Your task to perform on an android device: Search for a nightstand on IKEA. Image 0: 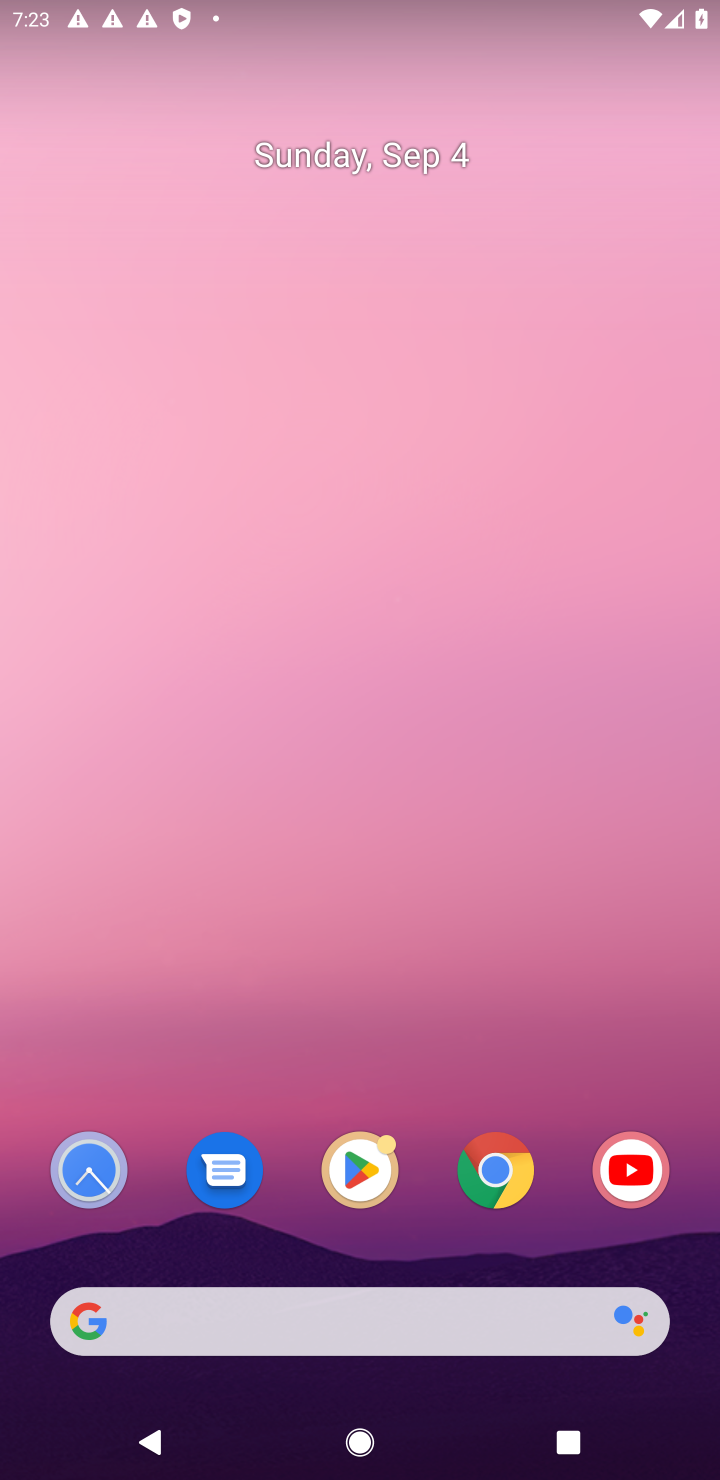
Step 0: click (492, 1145)
Your task to perform on an android device: Search for a nightstand on IKEA. Image 1: 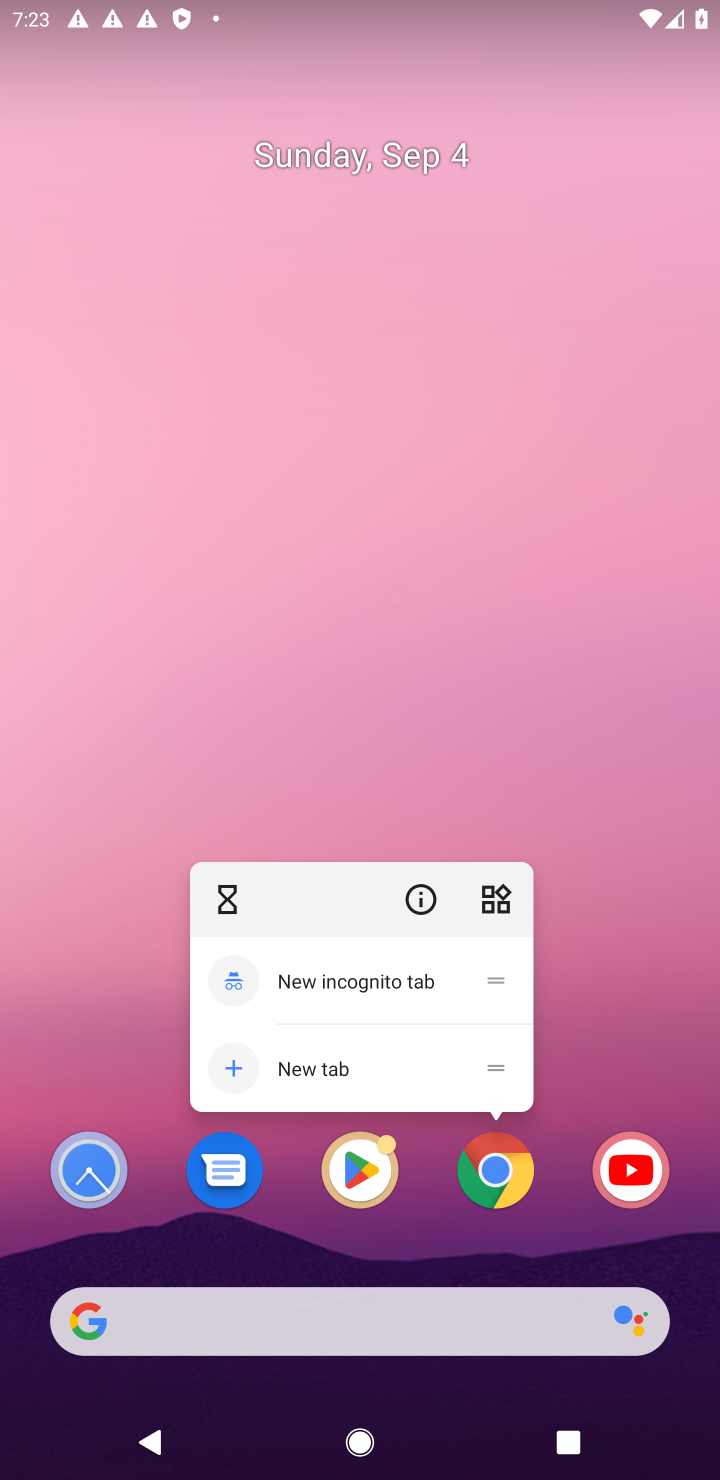
Step 1: click (492, 1145)
Your task to perform on an android device: Search for a nightstand on IKEA. Image 2: 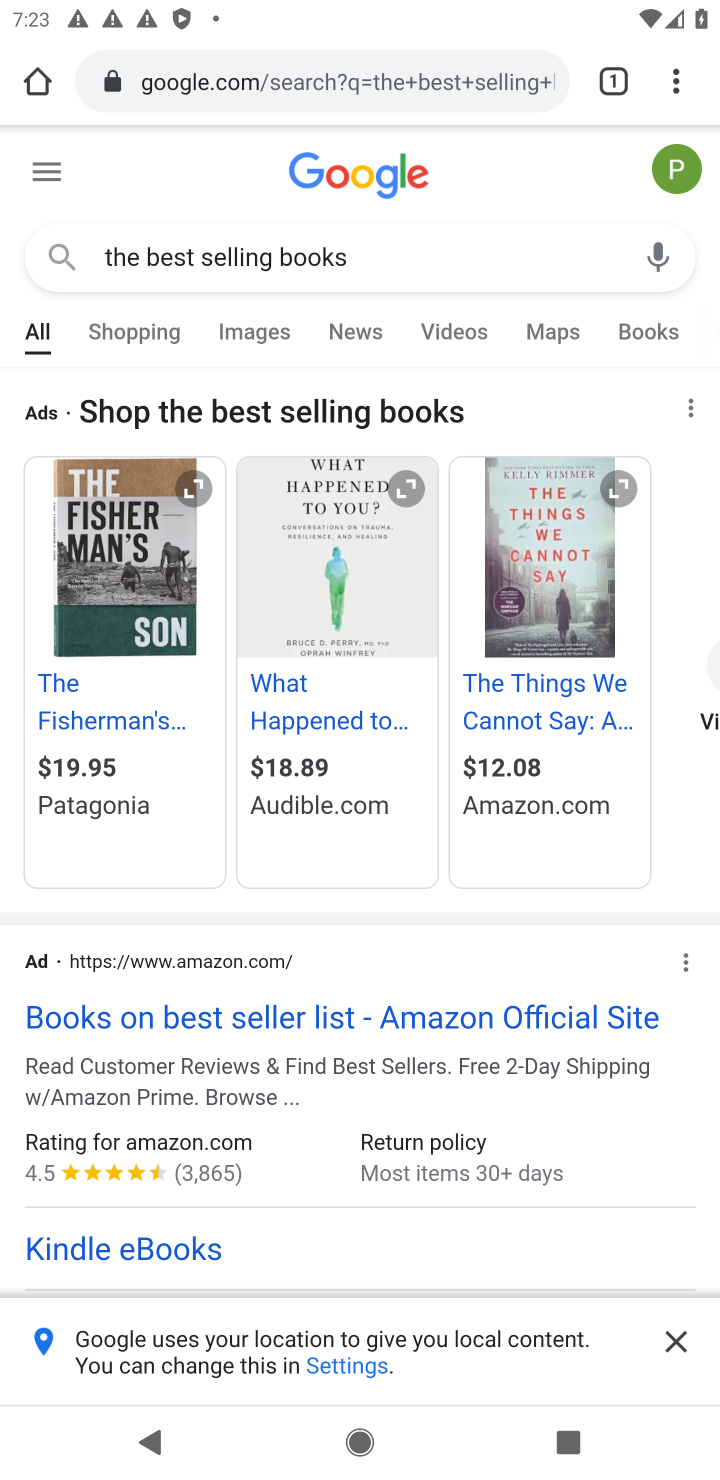
Step 2: click (321, 73)
Your task to perform on an android device: Search for a nightstand on IKEA. Image 3: 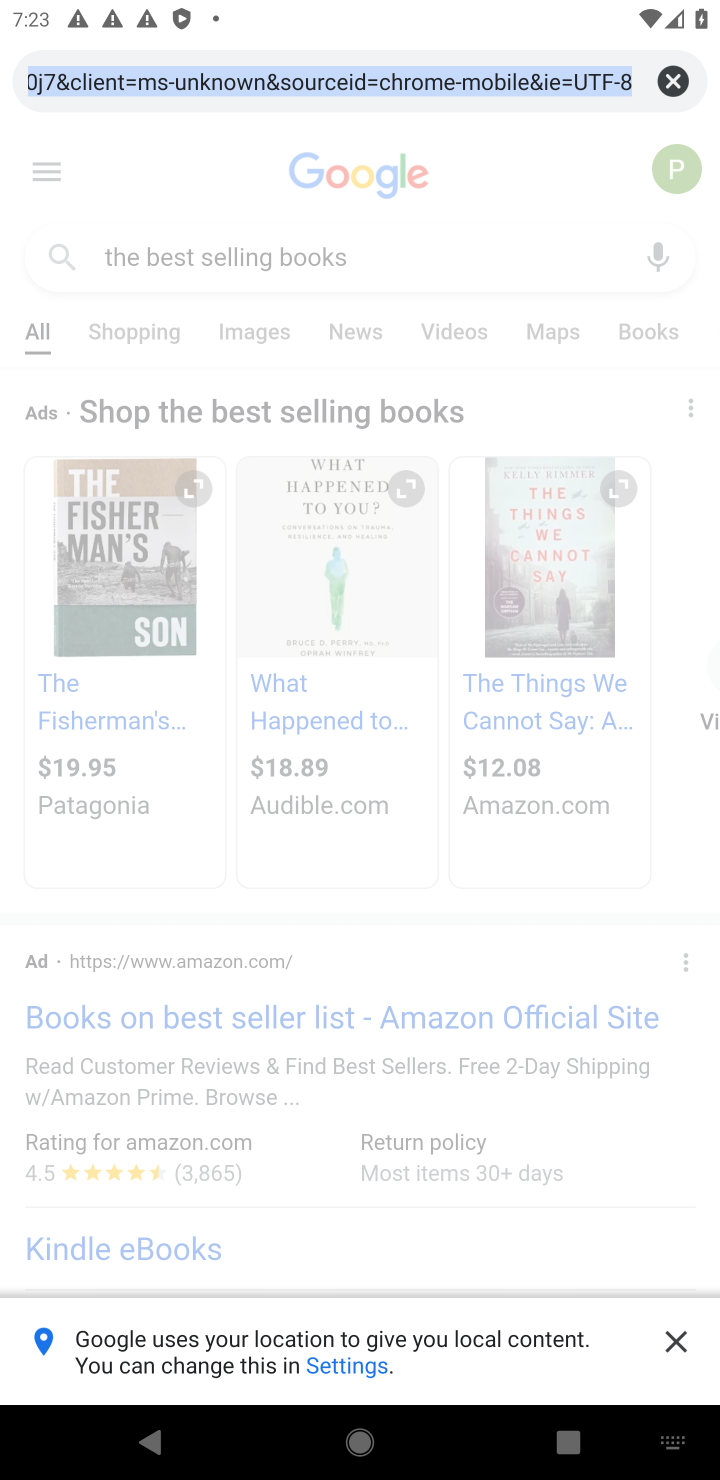
Step 3: type "IKEA"
Your task to perform on an android device: Search for a nightstand on IKEA. Image 4: 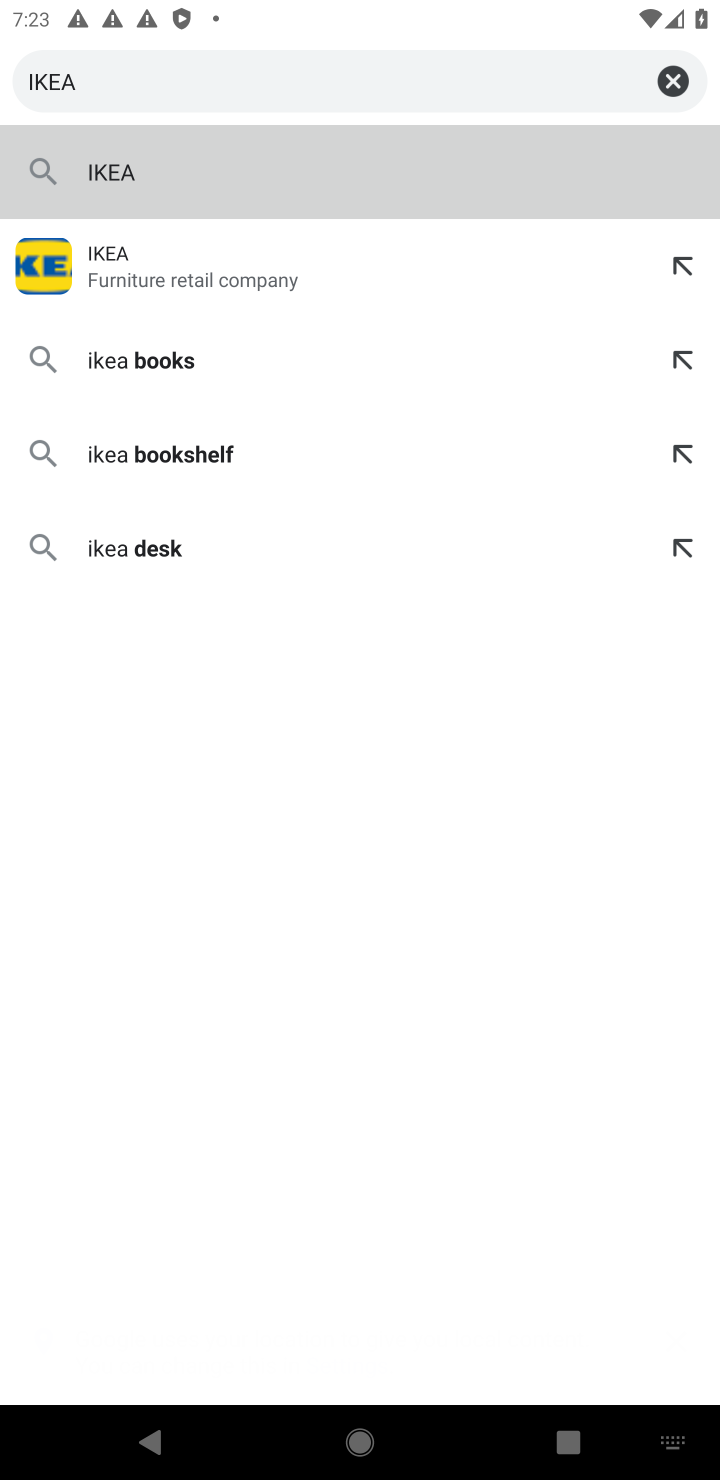
Step 4: click (262, 206)
Your task to perform on an android device: Search for a nightstand on IKEA. Image 5: 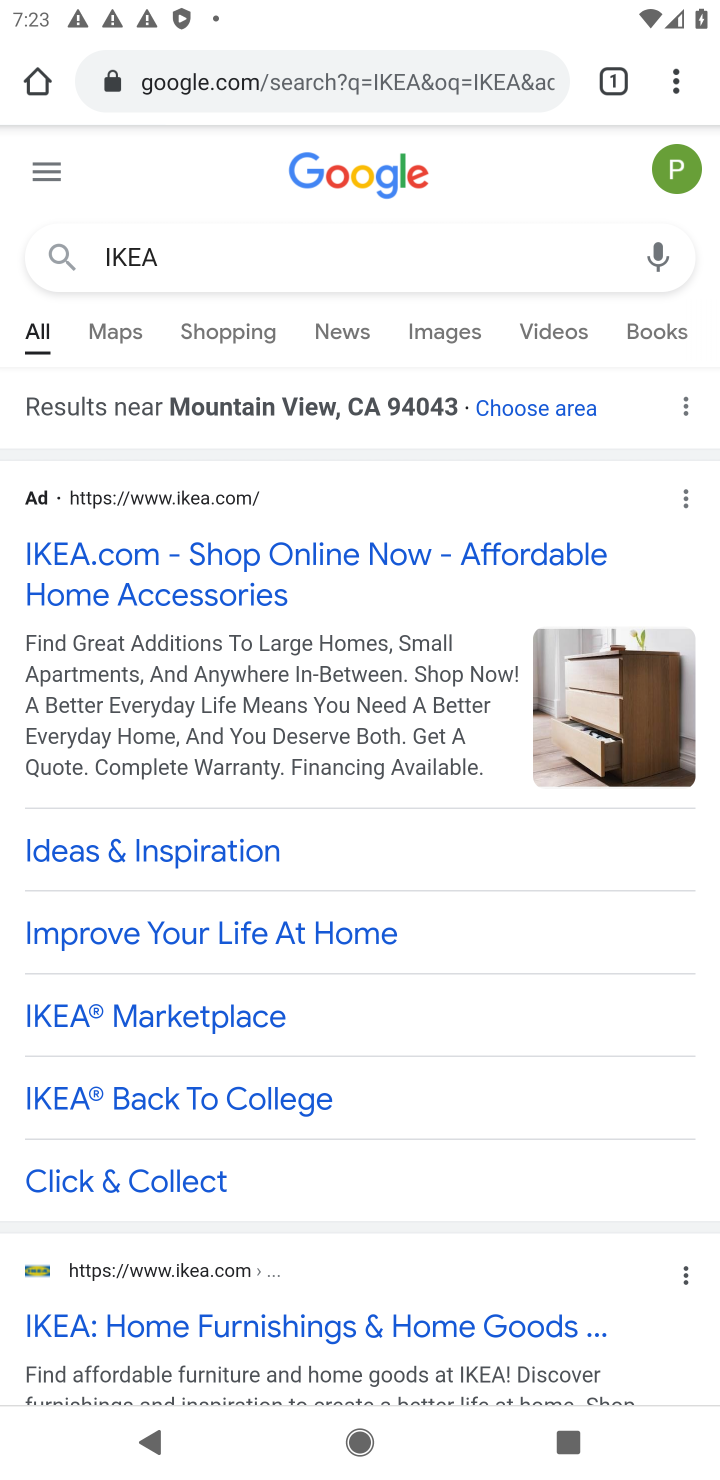
Step 5: click (123, 586)
Your task to perform on an android device: Search for a nightstand on IKEA. Image 6: 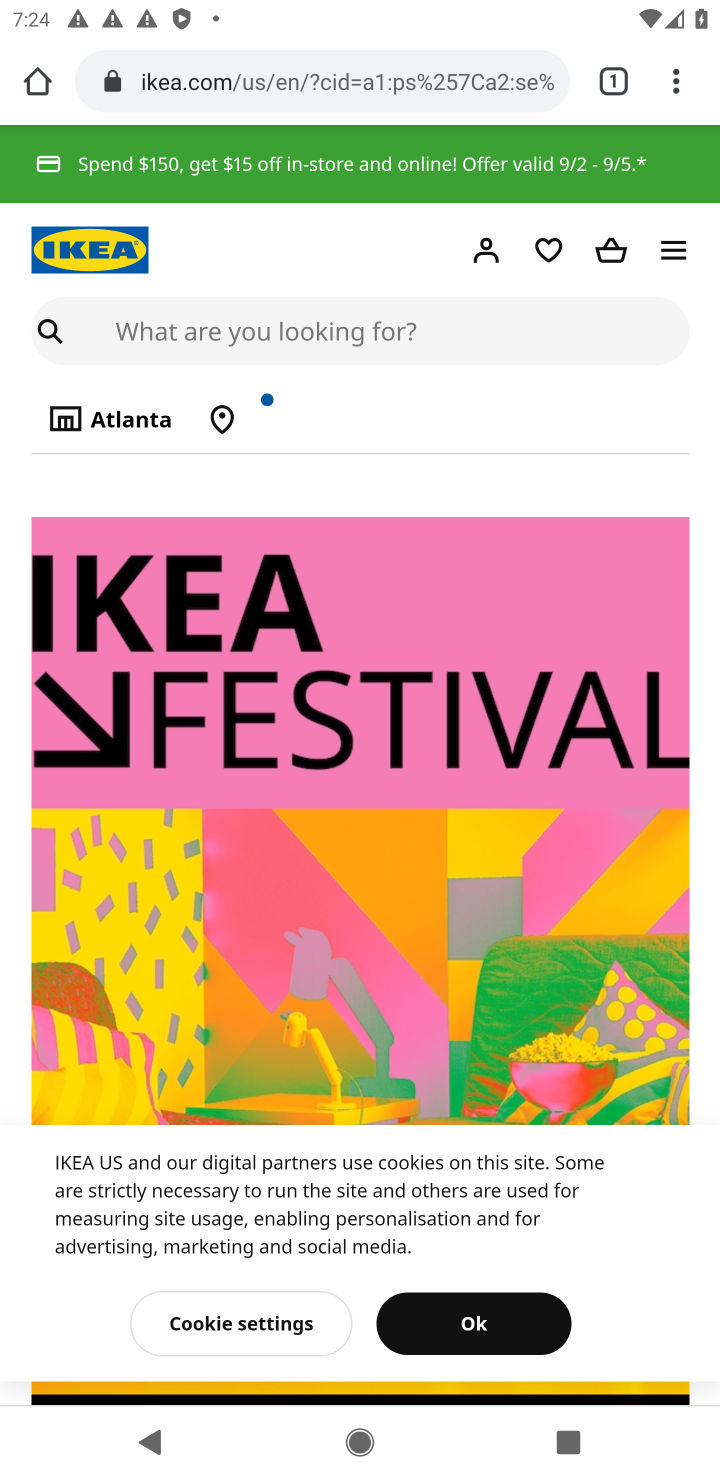
Step 6: click (423, 330)
Your task to perform on an android device: Search for a nightstand on IKEA. Image 7: 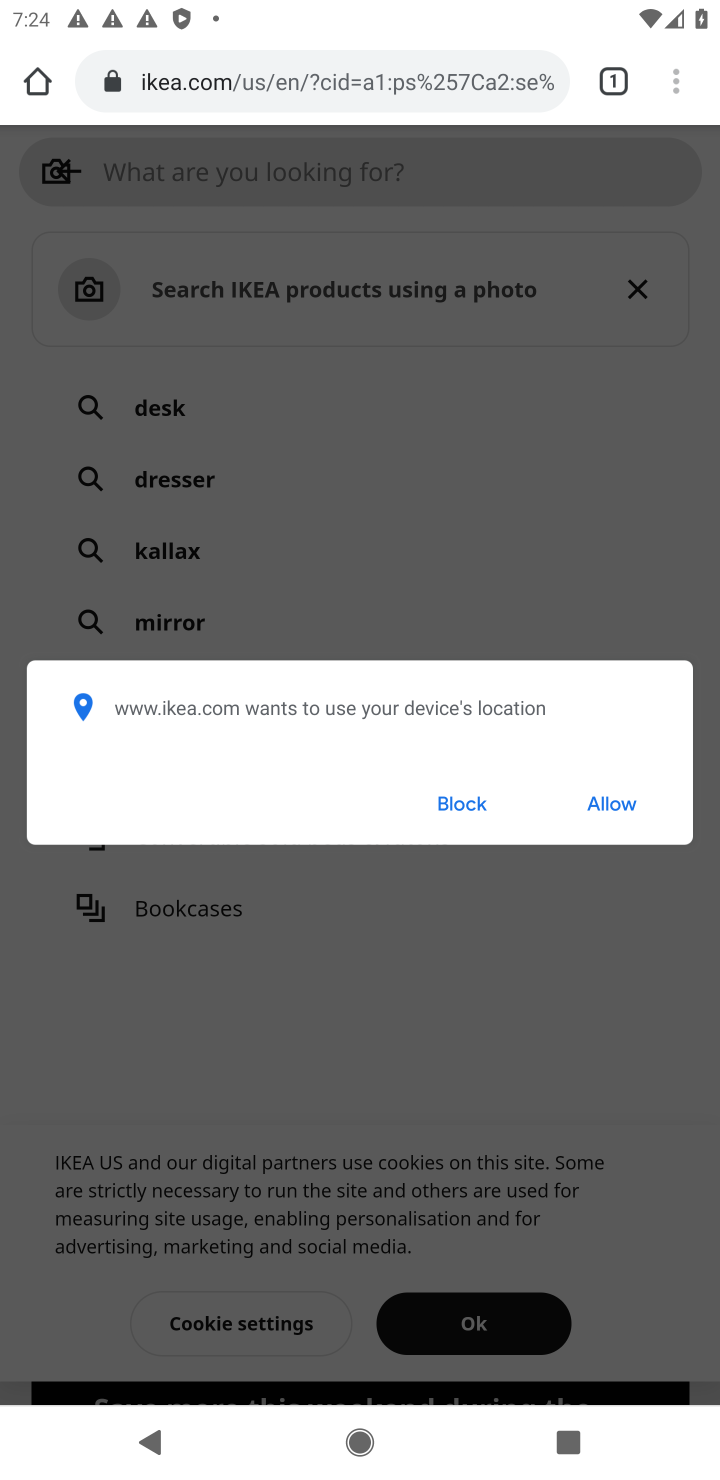
Step 7: click (614, 799)
Your task to perform on an android device: Search for a nightstand on IKEA. Image 8: 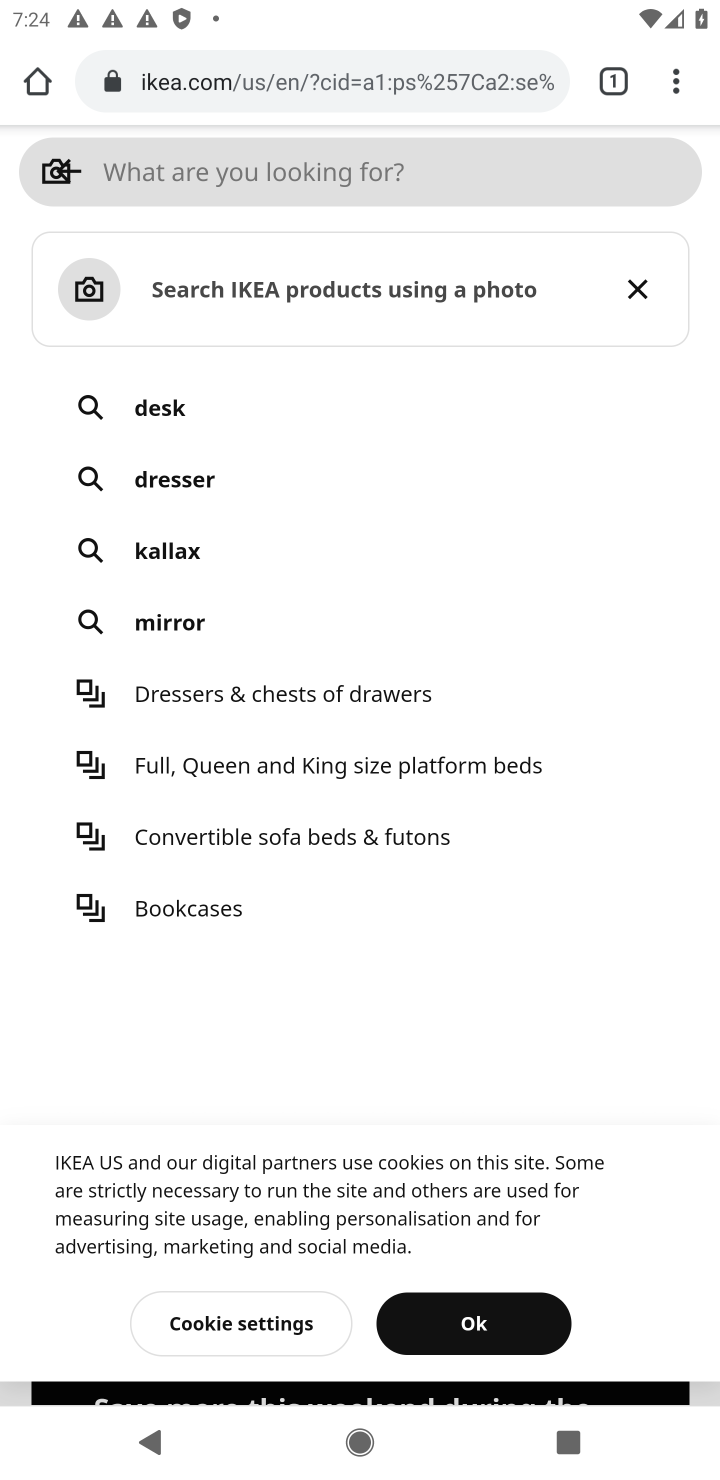
Step 8: click (501, 192)
Your task to perform on an android device: Search for a nightstand on IKEA. Image 9: 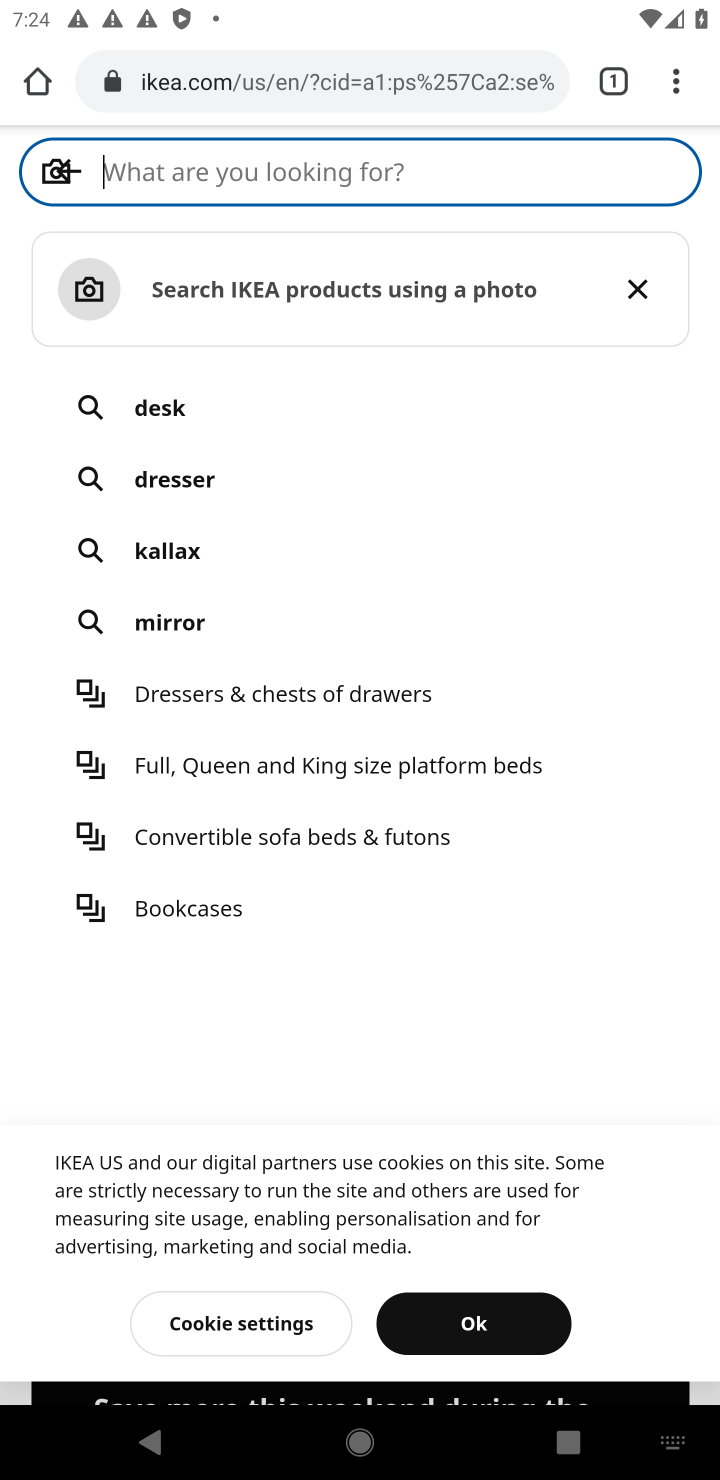
Step 9: type "nightstands"
Your task to perform on an android device: Search for a nightstand on IKEA. Image 10: 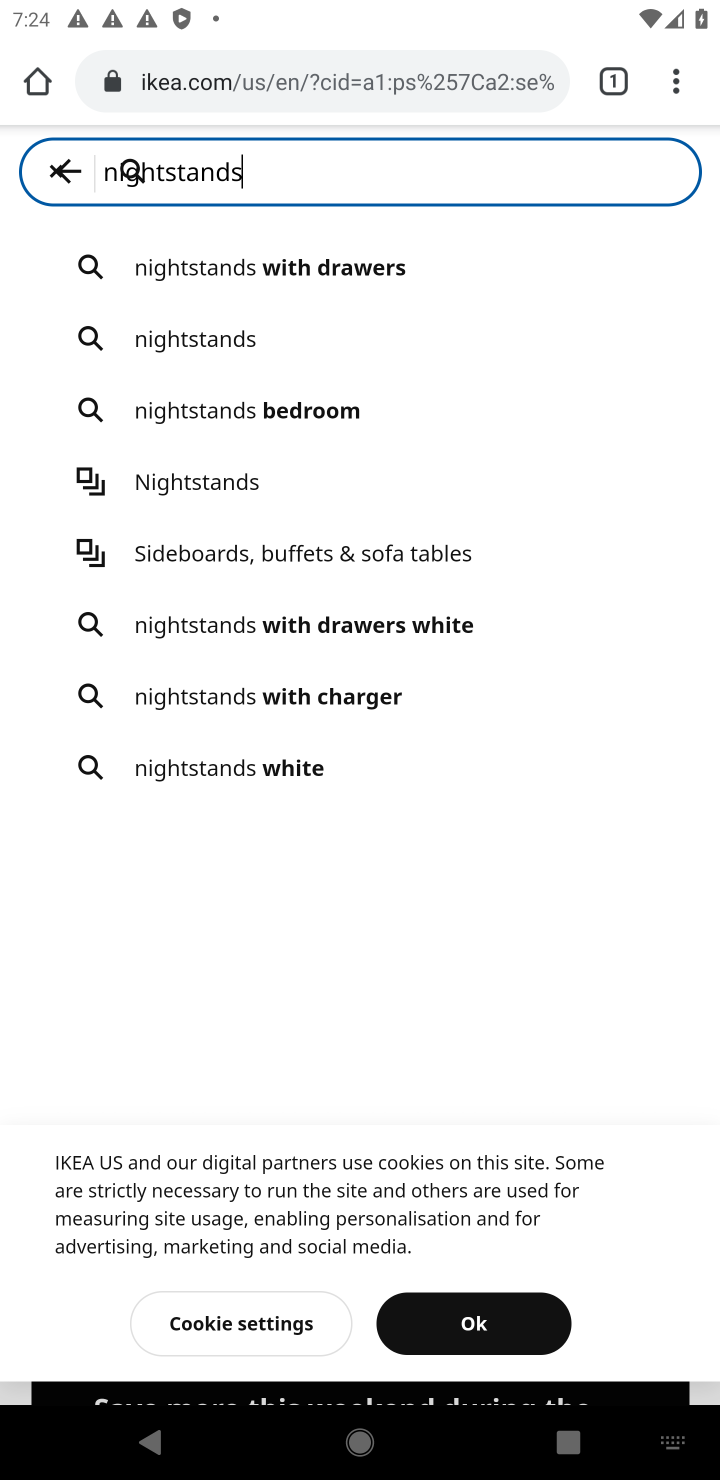
Step 10: click (260, 340)
Your task to perform on an android device: Search for a nightstand on IKEA. Image 11: 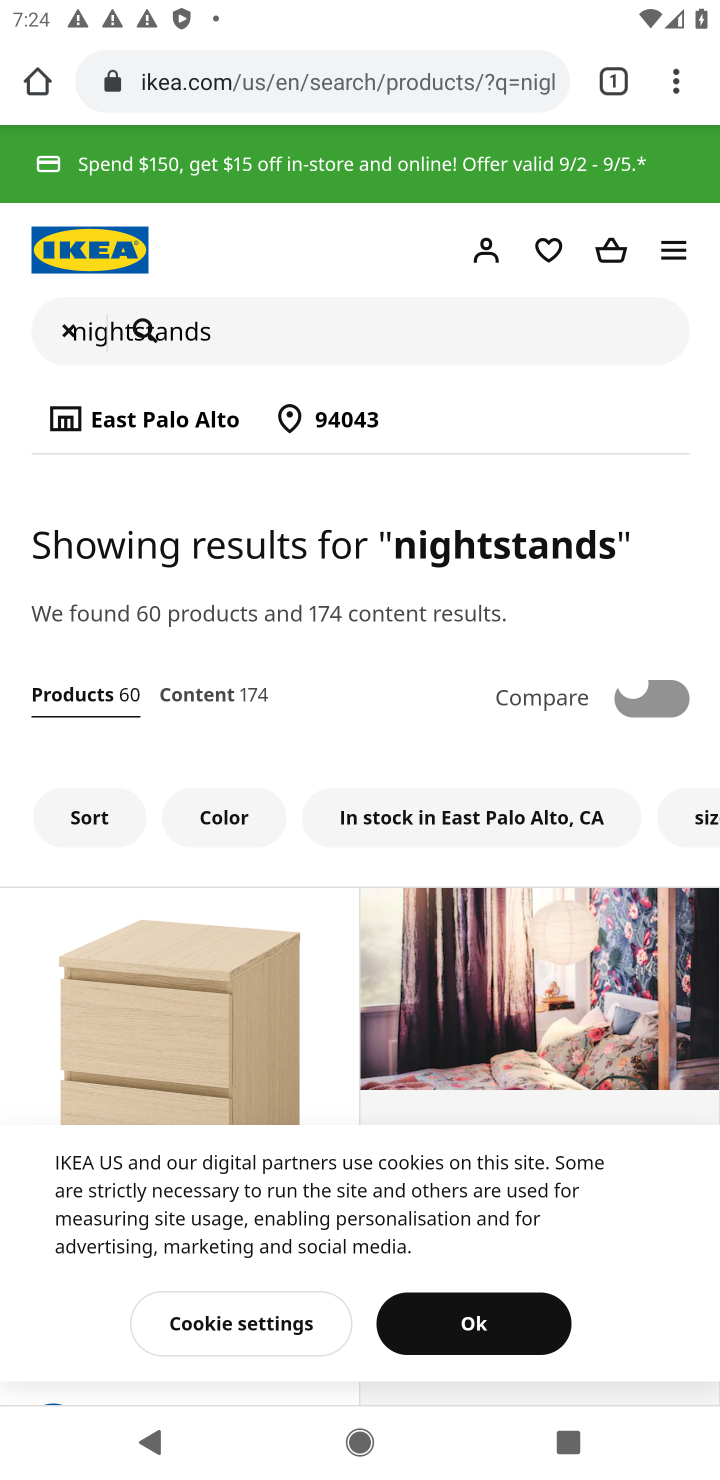
Step 11: task complete